Your task to perform on an android device: change notifications settings Image 0: 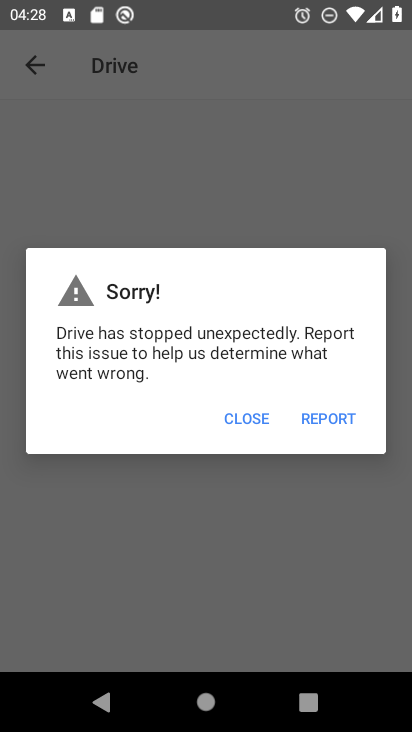
Step 0: press home button
Your task to perform on an android device: change notifications settings Image 1: 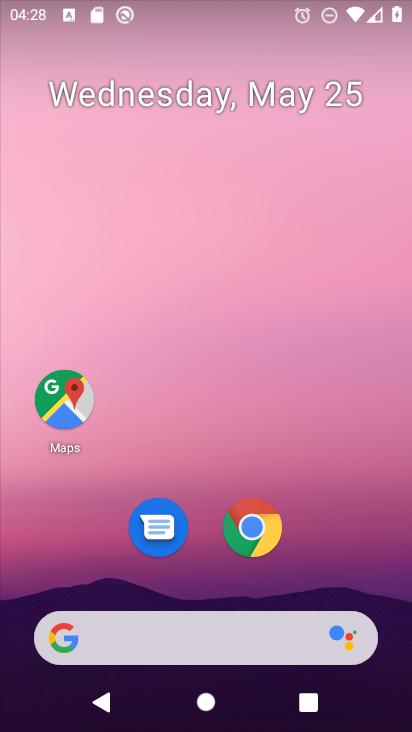
Step 1: drag from (260, 409) to (221, 124)
Your task to perform on an android device: change notifications settings Image 2: 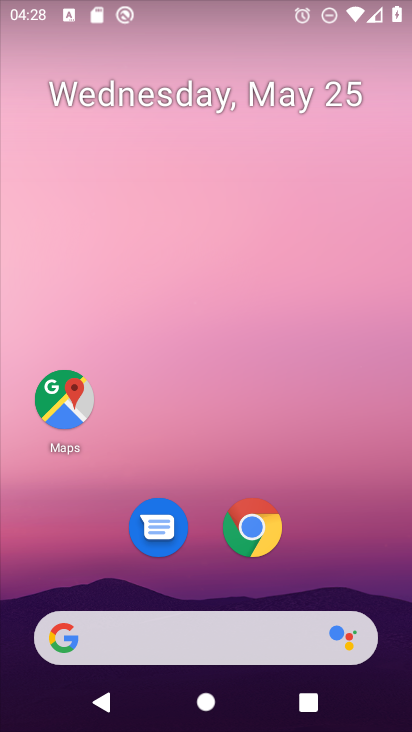
Step 2: drag from (218, 477) to (181, 0)
Your task to perform on an android device: change notifications settings Image 3: 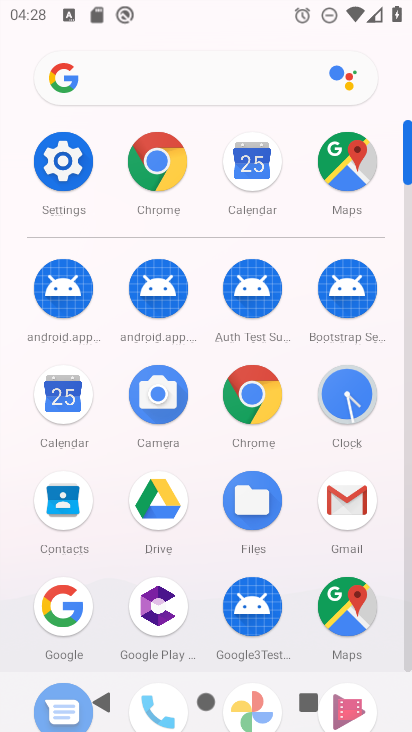
Step 3: click (60, 175)
Your task to perform on an android device: change notifications settings Image 4: 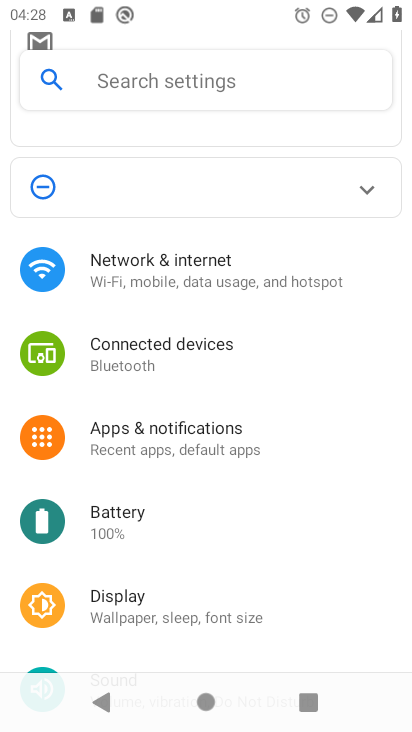
Step 4: click (196, 452)
Your task to perform on an android device: change notifications settings Image 5: 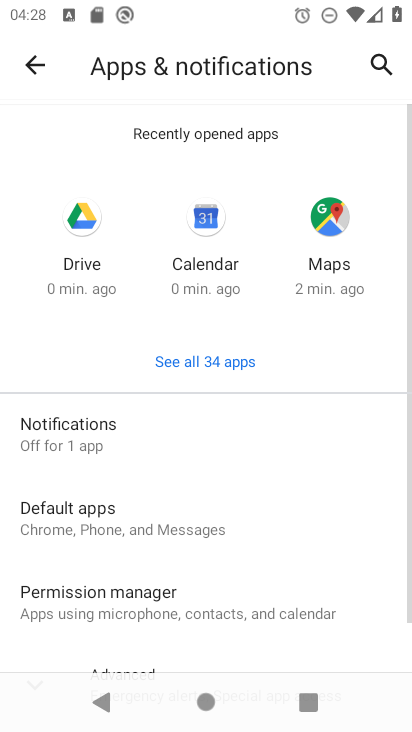
Step 5: click (114, 436)
Your task to perform on an android device: change notifications settings Image 6: 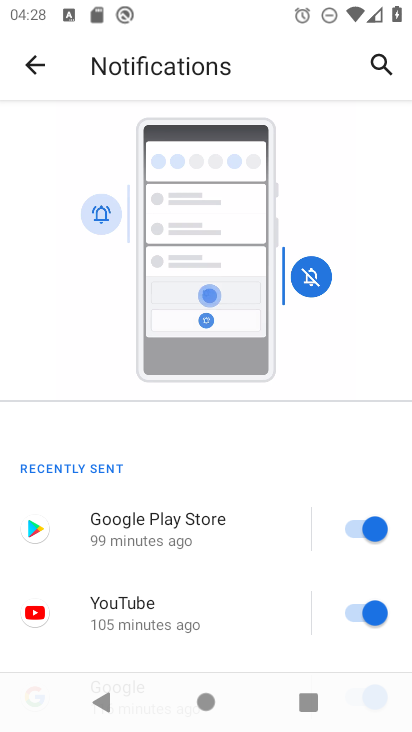
Step 6: drag from (224, 441) to (206, 188)
Your task to perform on an android device: change notifications settings Image 7: 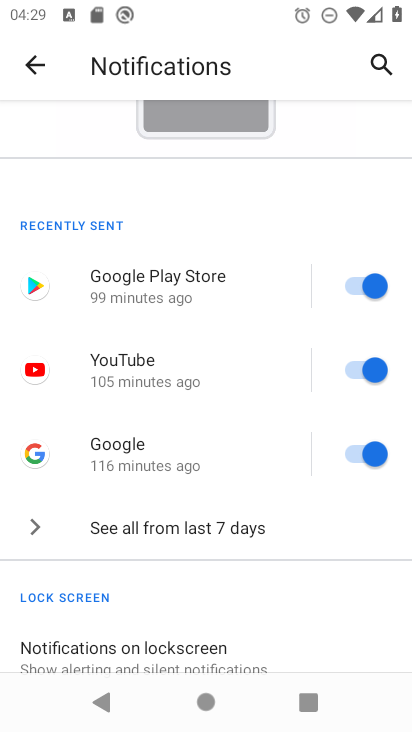
Step 7: click (183, 651)
Your task to perform on an android device: change notifications settings Image 8: 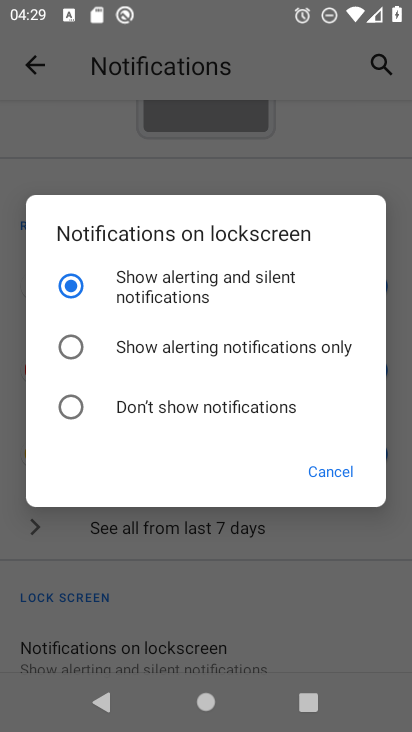
Step 8: click (170, 602)
Your task to perform on an android device: change notifications settings Image 9: 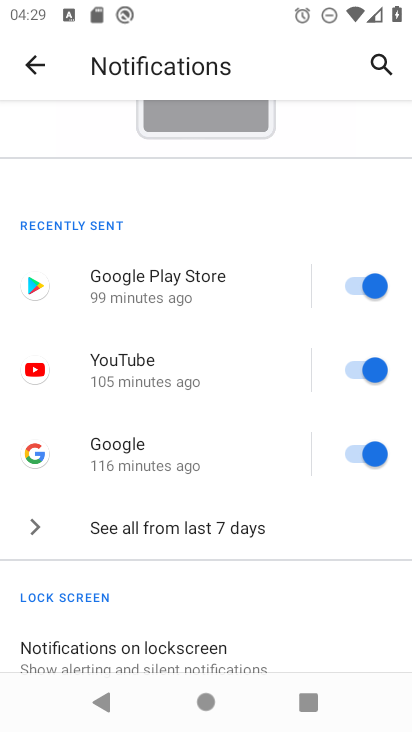
Step 9: click (331, 475)
Your task to perform on an android device: change notifications settings Image 10: 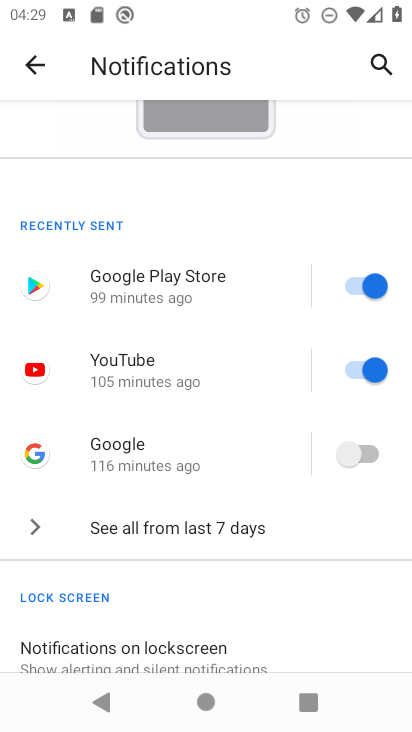
Step 10: drag from (315, 570) to (271, 216)
Your task to perform on an android device: change notifications settings Image 11: 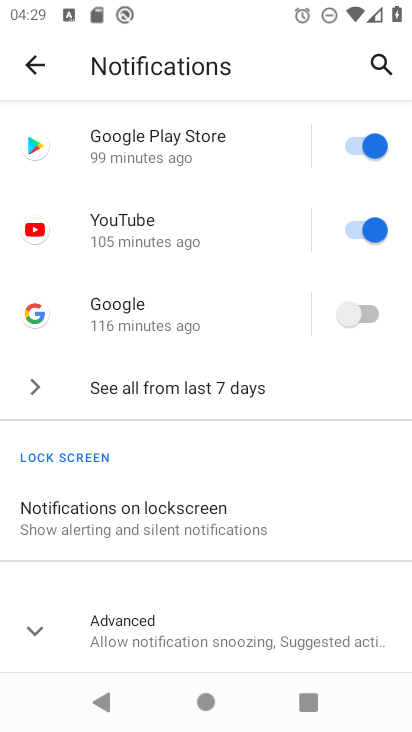
Step 11: click (132, 626)
Your task to perform on an android device: change notifications settings Image 12: 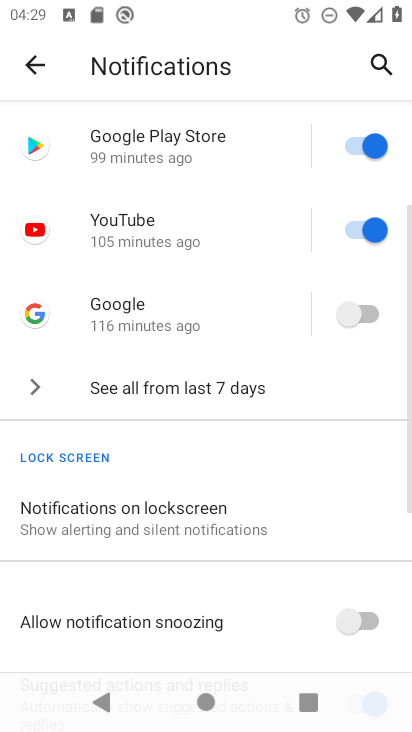
Step 12: drag from (287, 534) to (276, 227)
Your task to perform on an android device: change notifications settings Image 13: 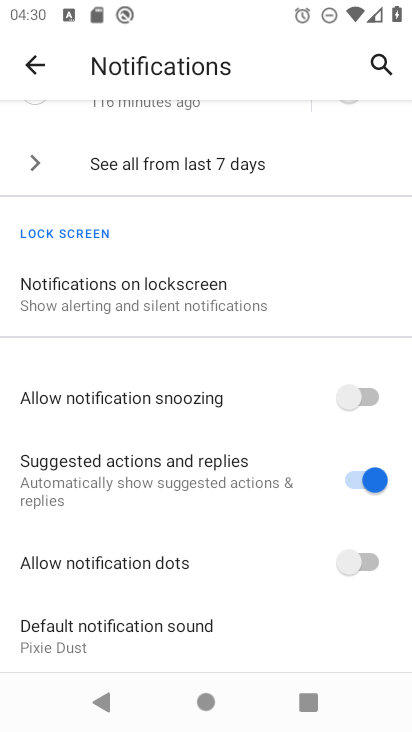
Step 13: drag from (258, 231) to (199, 651)
Your task to perform on an android device: change notifications settings Image 14: 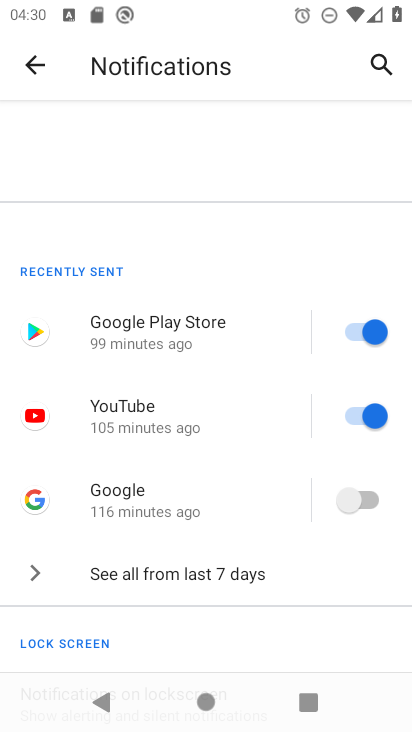
Step 14: click (361, 324)
Your task to perform on an android device: change notifications settings Image 15: 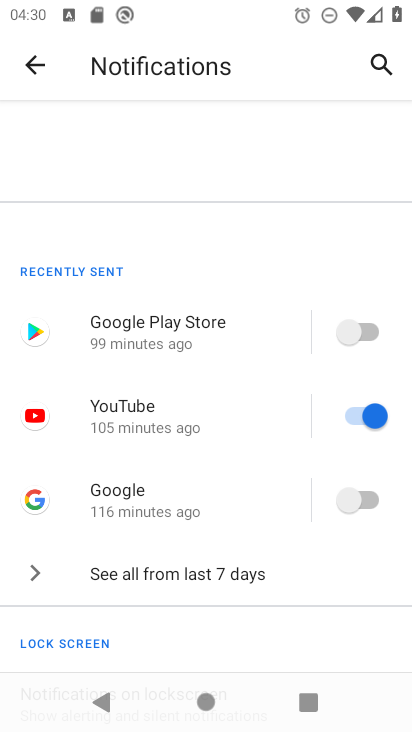
Step 15: task complete